Your task to perform on an android device: Open the phone app and click the voicemail tab. Image 0: 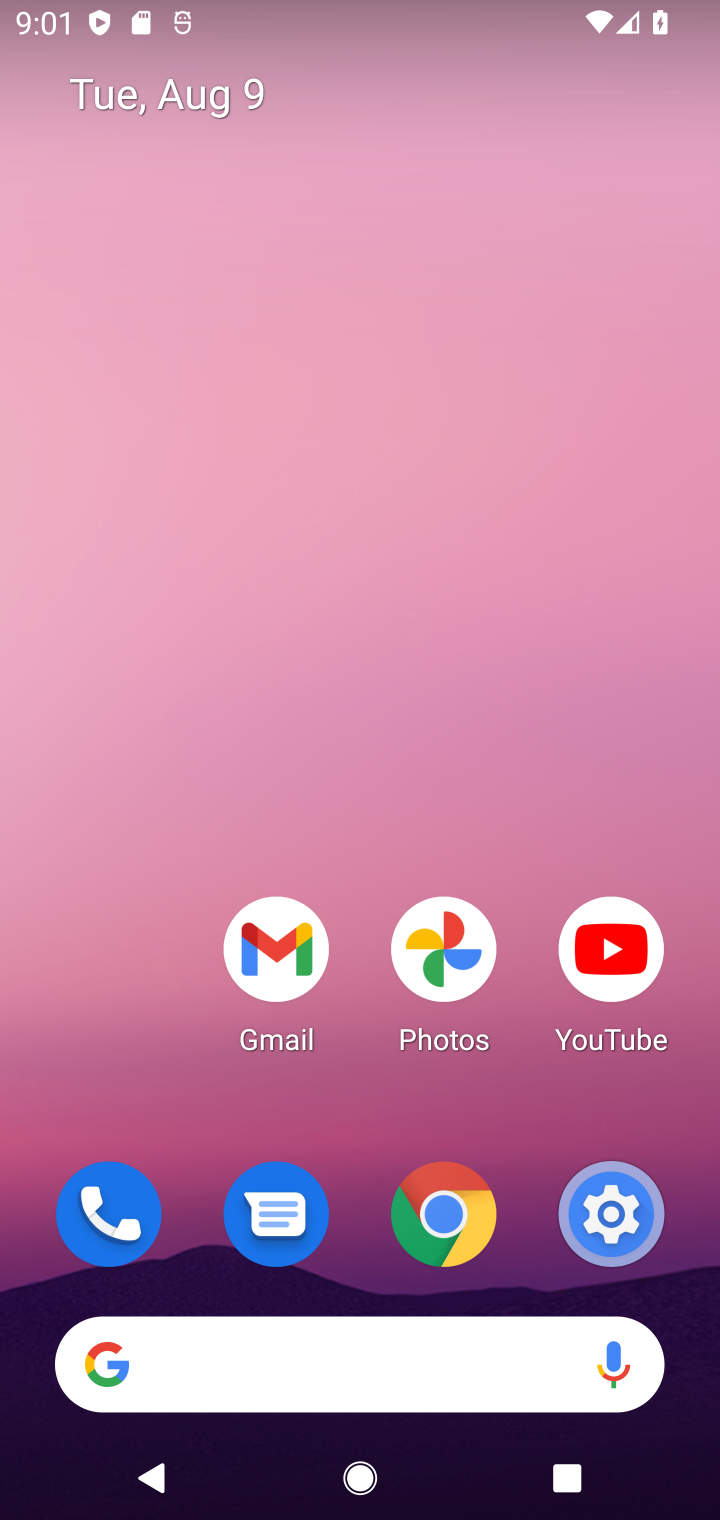
Step 0: click (116, 1206)
Your task to perform on an android device: Open the phone app and click the voicemail tab. Image 1: 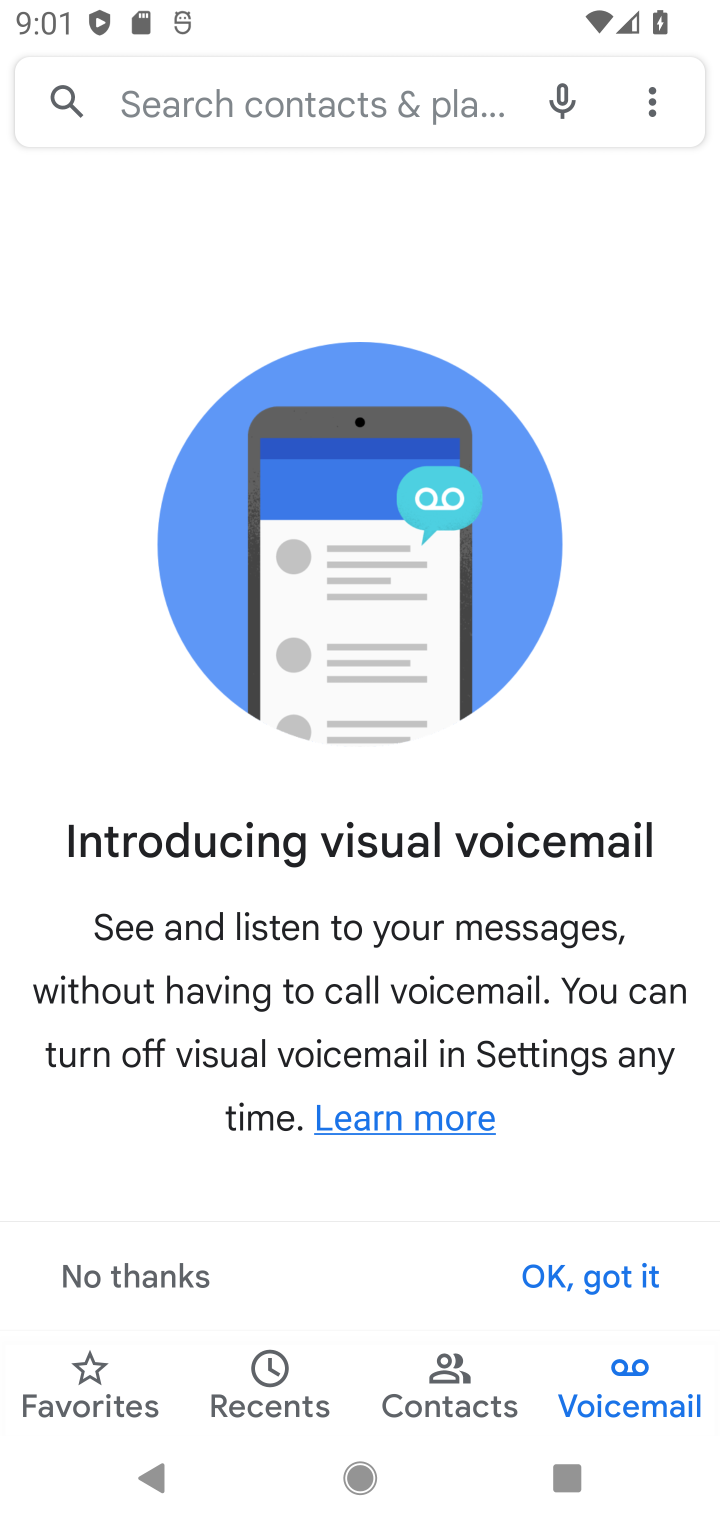
Step 1: click (576, 1279)
Your task to perform on an android device: Open the phone app and click the voicemail tab. Image 2: 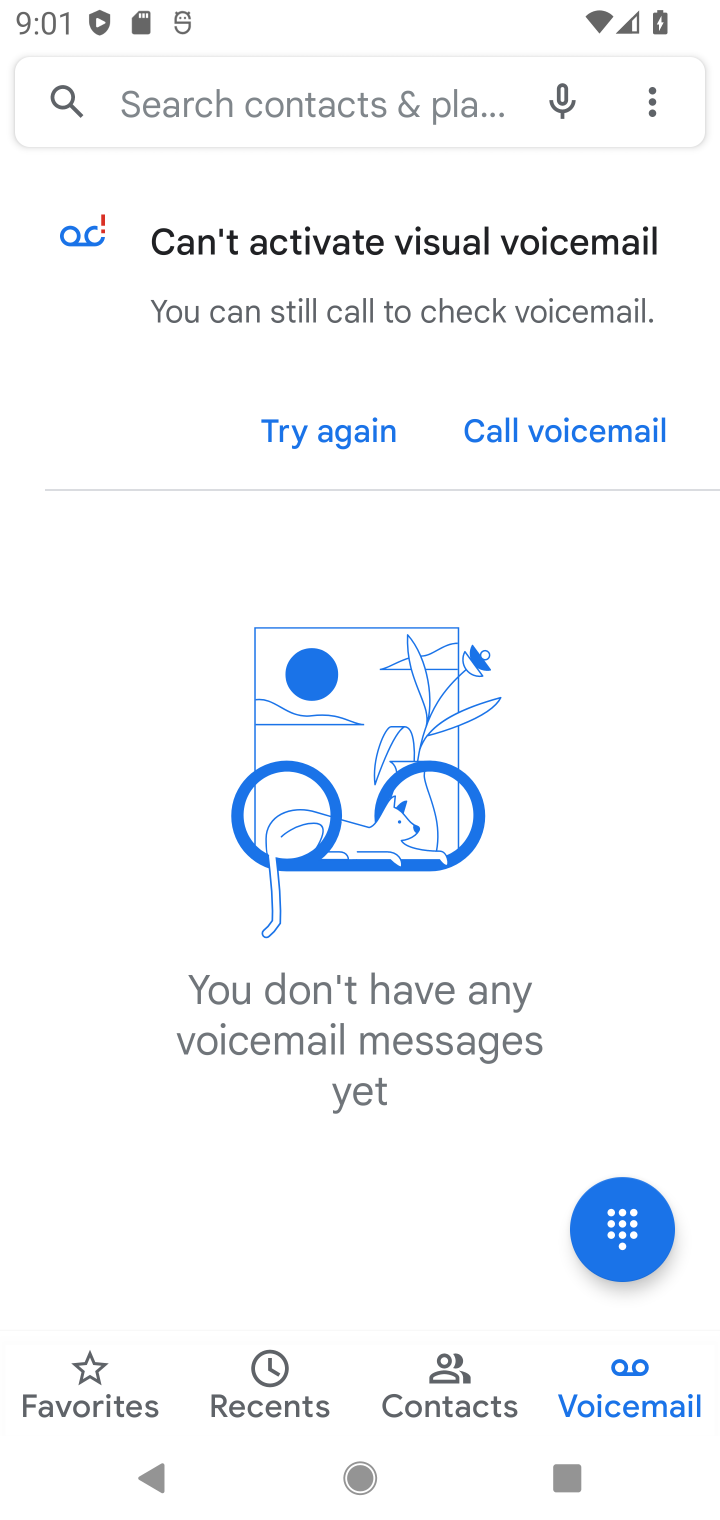
Step 2: task complete